Your task to perform on an android device: turn off picture-in-picture Image 0: 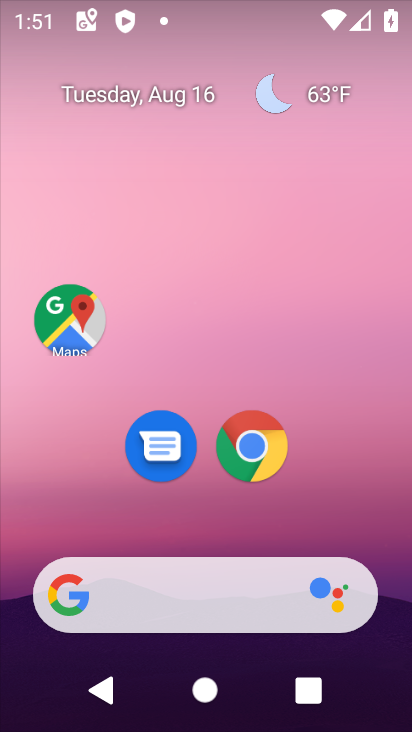
Step 0: press home button
Your task to perform on an android device: turn off picture-in-picture Image 1: 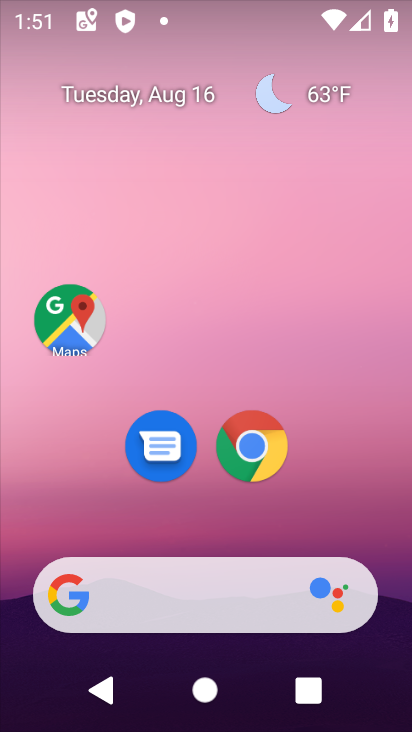
Step 1: click (246, 447)
Your task to perform on an android device: turn off picture-in-picture Image 2: 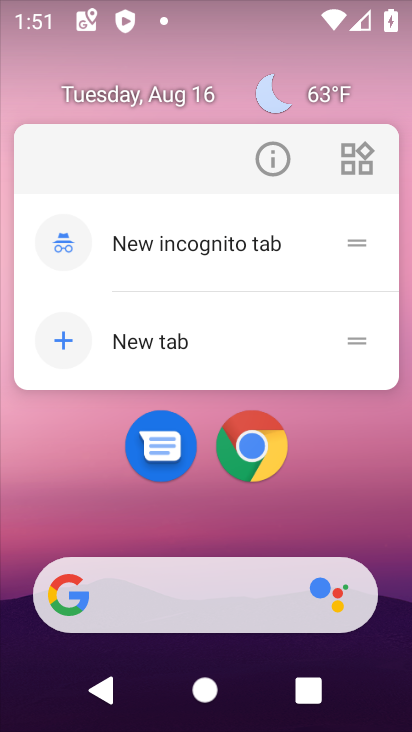
Step 2: click (270, 159)
Your task to perform on an android device: turn off picture-in-picture Image 3: 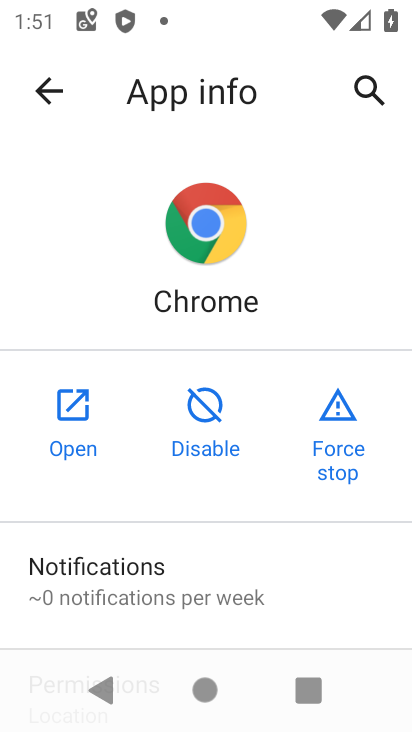
Step 3: drag from (227, 632) to (269, 37)
Your task to perform on an android device: turn off picture-in-picture Image 4: 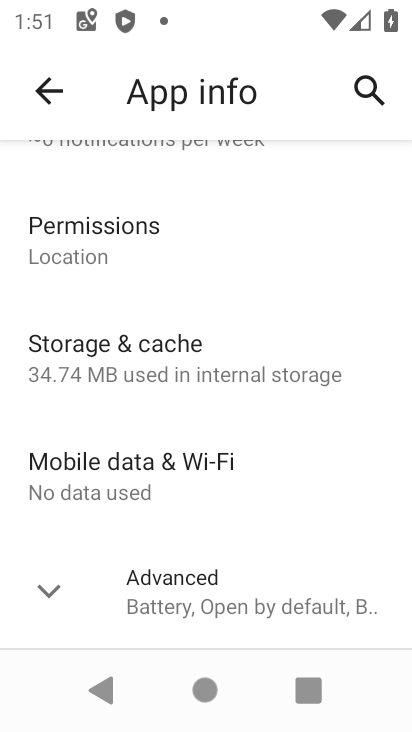
Step 4: click (51, 594)
Your task to perform on an android device: turn off picture-in-picture Image 5: 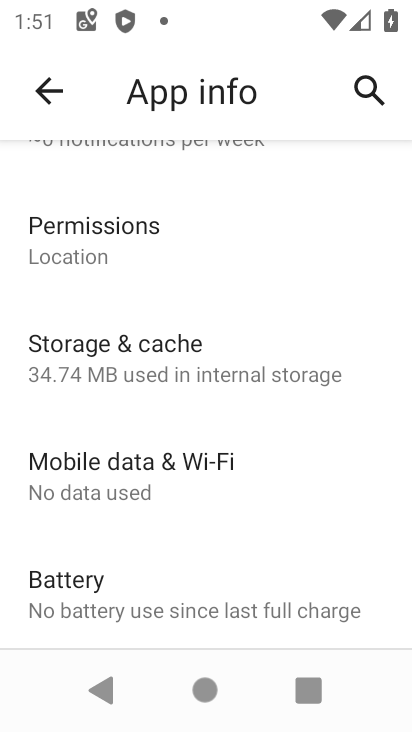
Step 5: drag from (177, 579) to (248, 51)
Your task to perform on an android device: turn off picture-in-picture Image 6: 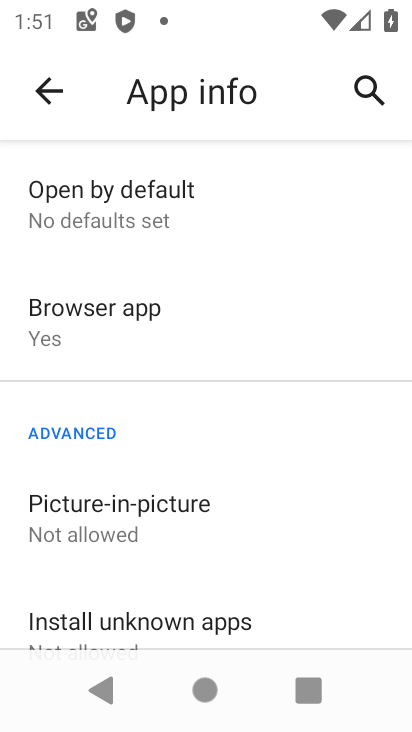
Step 6: click (149, 531)
Your task to perform on an android device: turn off picture-in-picture Image 7: 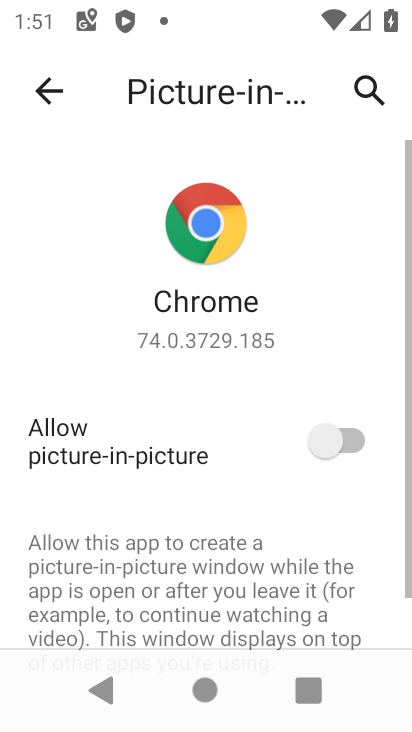
Step 7: click (146, 519)
Your task to perform on an android device: turn off picture-in-picture Image 8: 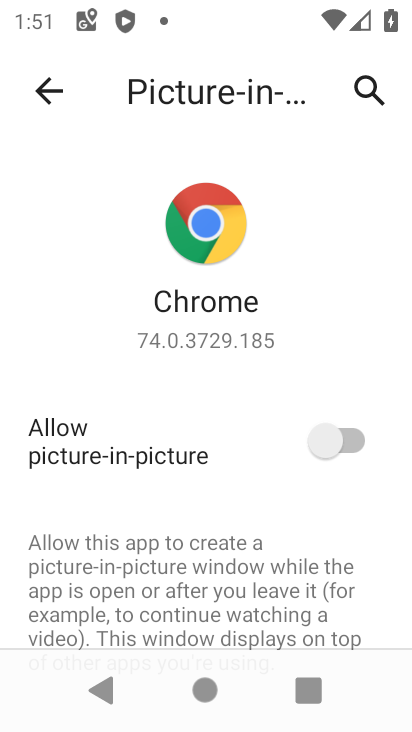
Step 8: task complete